Your task to perform on an android device: toggle show notifications on the lock screen Image 0: 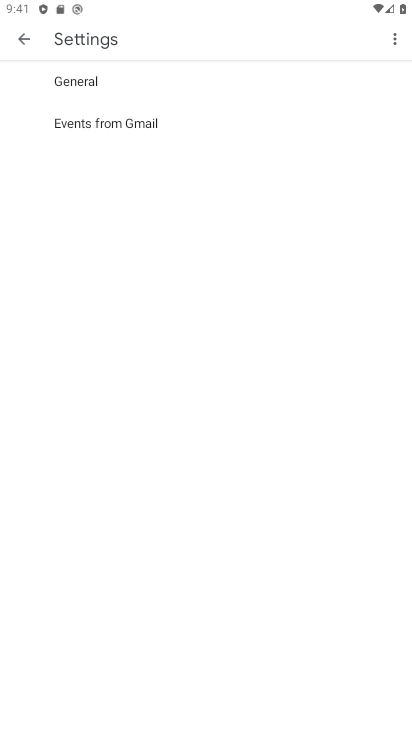
Step 0: press home button
Your task to perform on an android device: toggle show notifications on the lock screen Image 1: 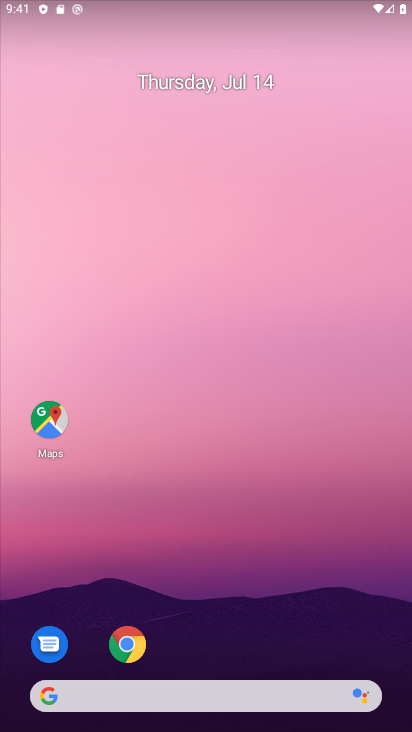
Step 1: drag from (234, 644) to (209, 186)
Your task to perform on an android device: toggle show notifications on the lock screen Image 2: 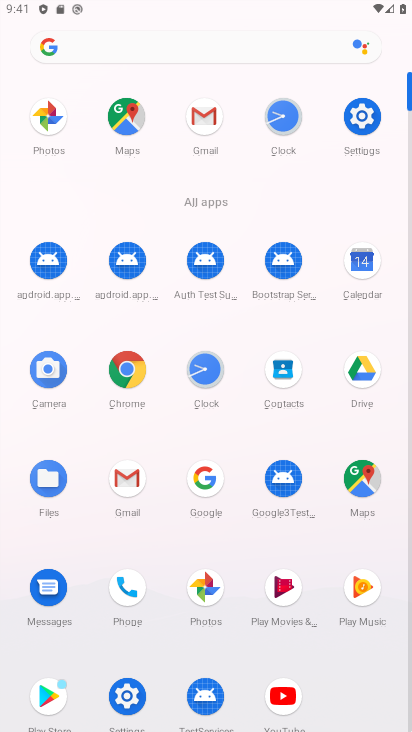
Step 2: click (365, 122)
Your task to perform on an android device: toggle show notifications on the lock screen Image 3: 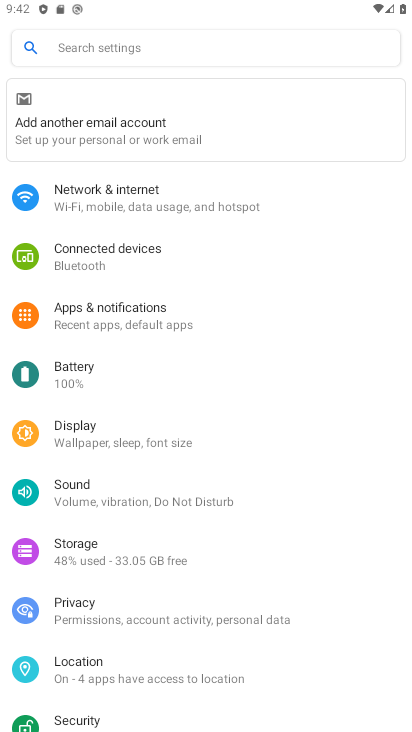
Step 3: click (150, 315)
Your task to perform on an android device: toggle show notifications on the lock screen Image 4: 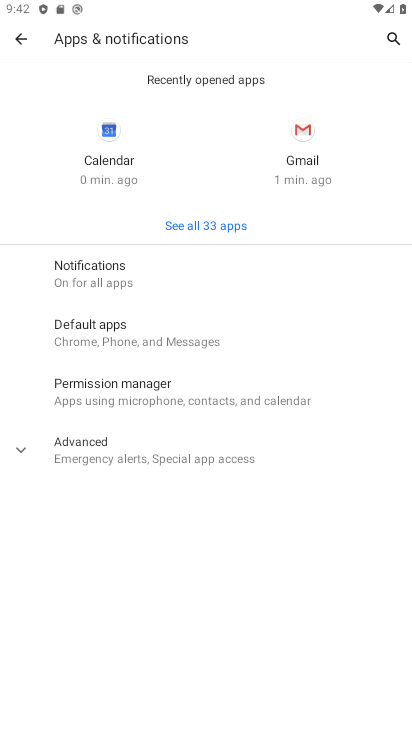
Step 4: click (180, 266)
Your task to perform on an android device: toggle show notifications on the lock screen Image 5: 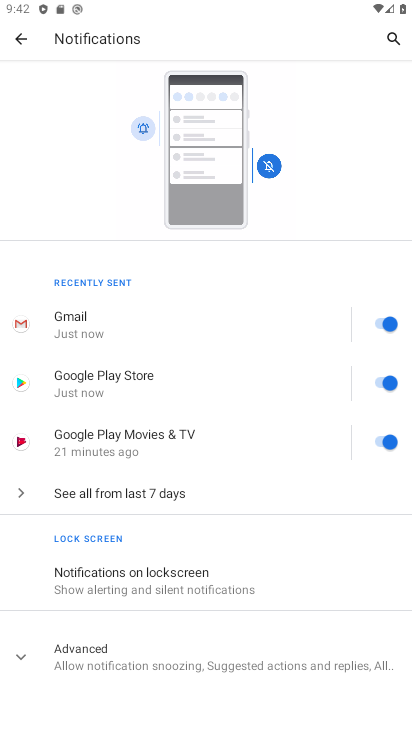
Step 5: click (247, 591)
Your task to perform on an android device: toggle show notifications on the lock screen Image 6: 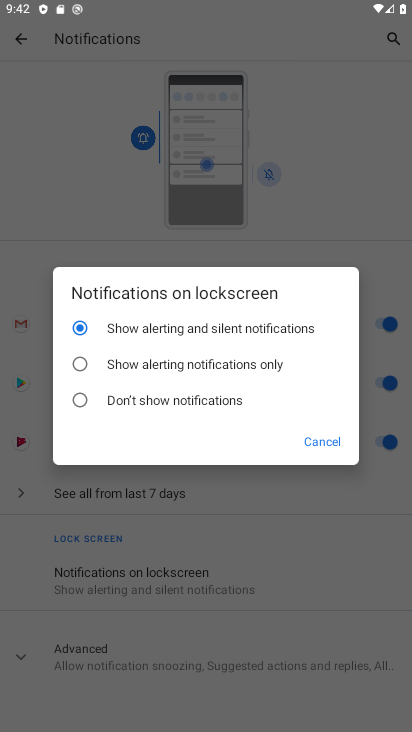
Step 6: click (204, 358)
Your task to perform on an android device: toggle show notifications on the lock screen Image 7: 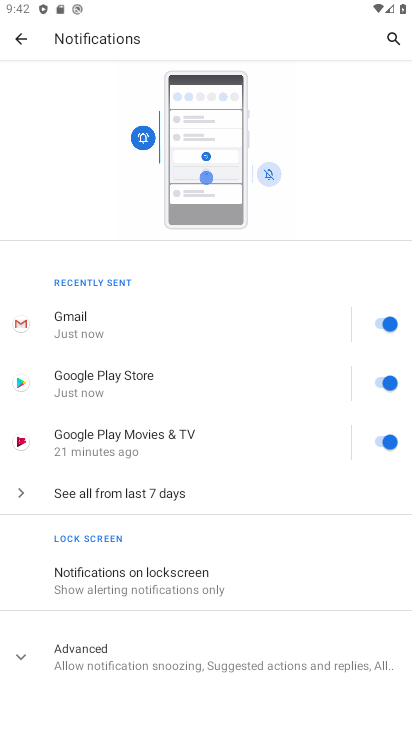
Step 7: task complete